Your task to perform on an android device: Search for vegetarian restaurants on Maps Image 0: 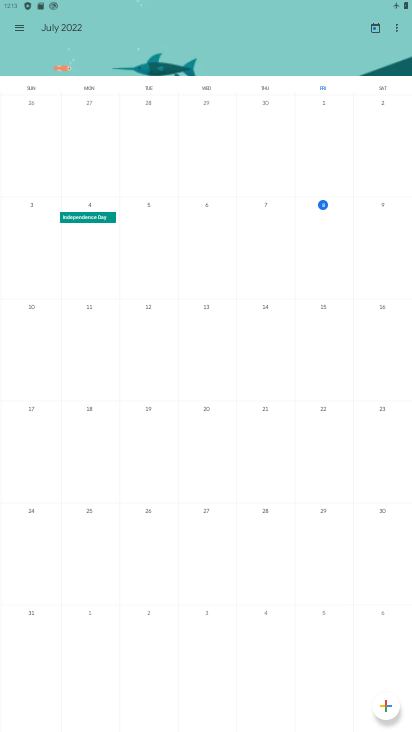
Step 0: drag from (239, 636) to (400, 369)
Your task to perform on an android device: Search for vegetarian restaurants on Maps Image 1: 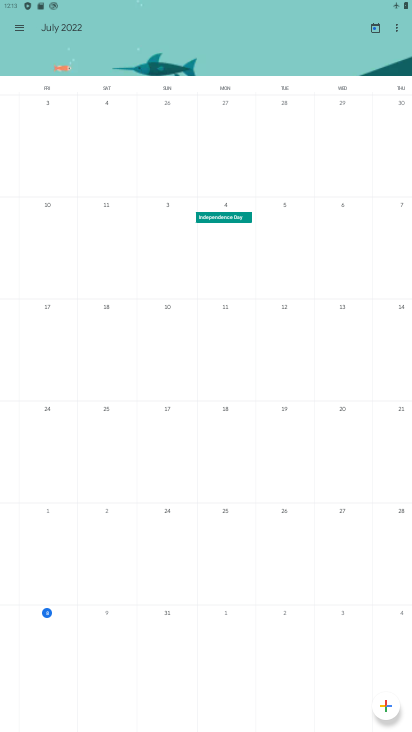
Step 1: press home button
Your task to perform on an android device: Search for vegetarian restaurants on Maps Image 2: 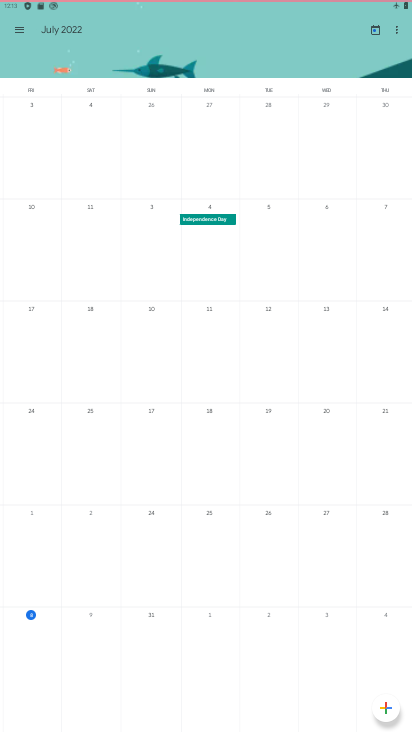
Step 2: drag from (400, 369) to (405, 545)
Your task to perform on an android device: Search for vegetarian restaurants on Maps Image 3: 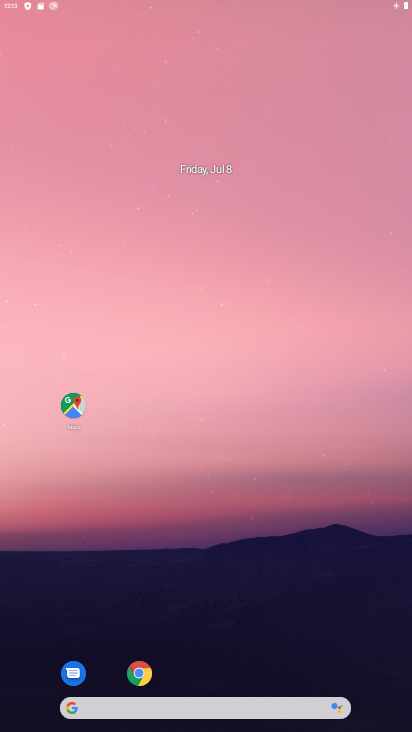
Step 3: drag from (197, 630) to (181, 73)
Your task to perform on an android device: Search for vegetarian restaurants on Maps Image 4: 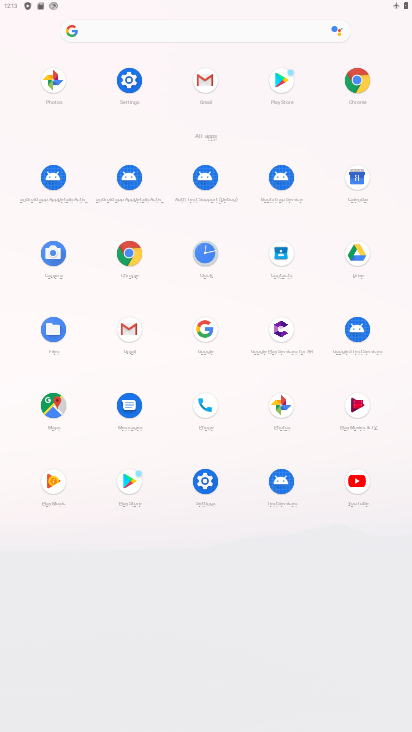
Step 4: click (50, 408)
Your task to perform on an android device: Search for vegetarian restaurants on Maps Image 5: 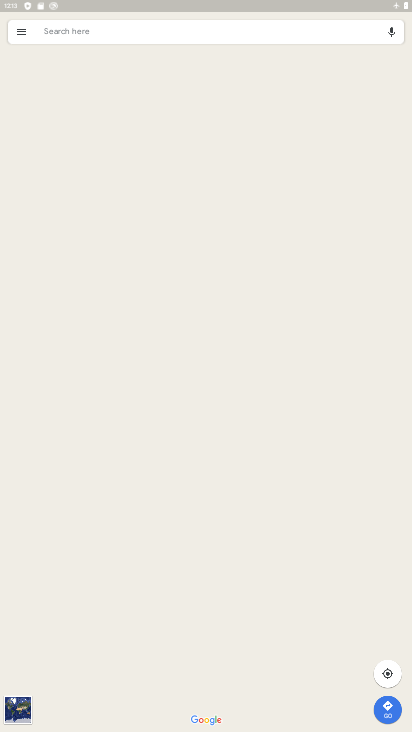
Step 5: click (151, 34)
Your task to perform on an android device: Search for vegetarian restaurants on Maps Image 6: 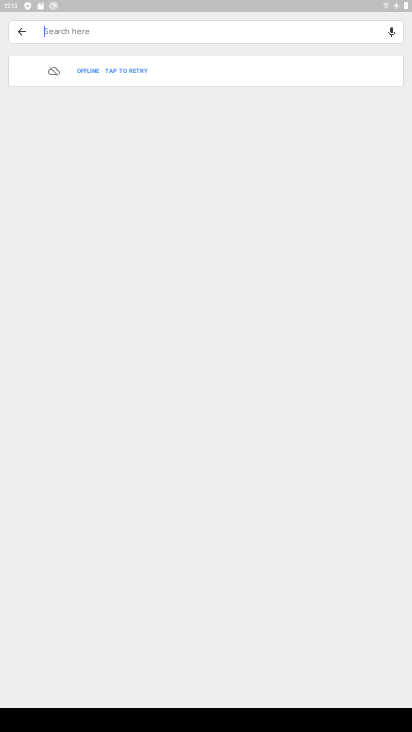
Step 6: type "vegetarian restaurants "
Your task to perform on an android device: Search for vegetarian restaurants on Maps Image 7: 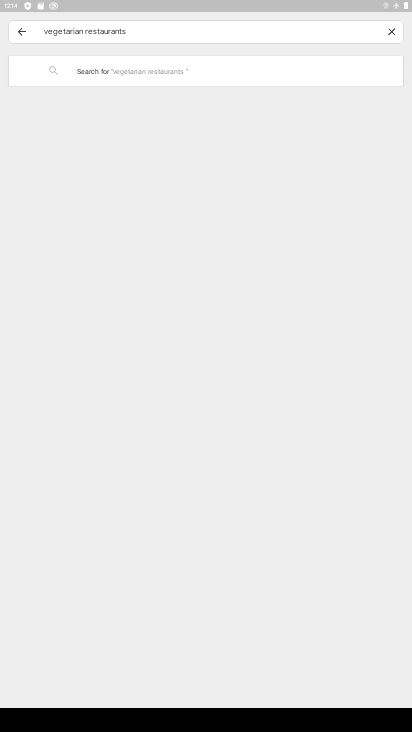
Step 7: task complete